Your task to perform on an android device: Search for vegetarian restaurants on Maps Image 0: 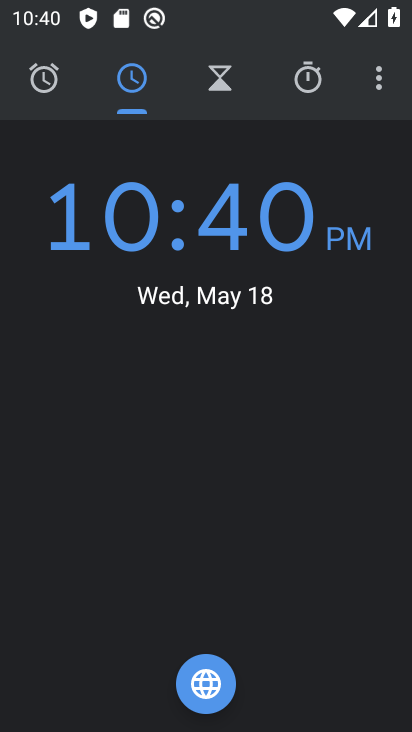
Step 0: press back button
Your task to perform on an android device: Search for vegetarian restaurants on Maps Image 1: 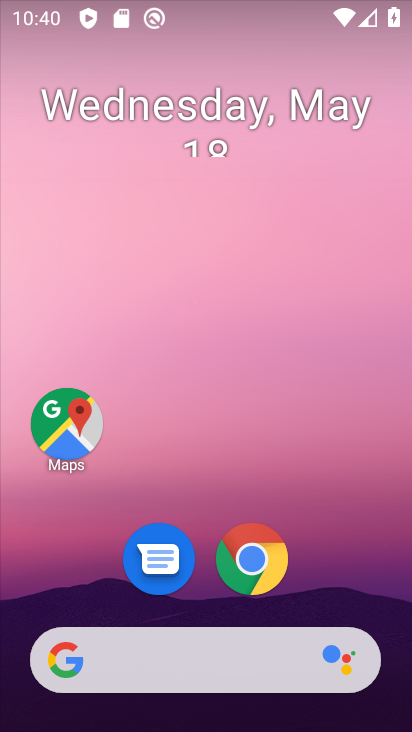
Step 1: click (53, 431)
Your task to perform on an android device: Search for vegetarian restaurants on Maps Image 2: 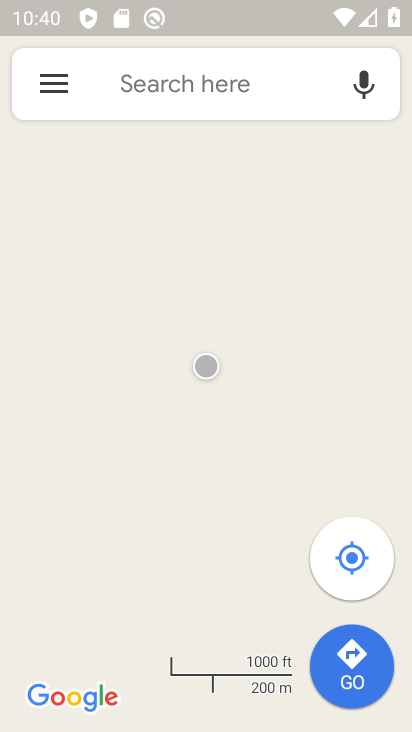
Step 2: click (167, 95)
Your task to perform on an android device: Search for vegetarian restaurants on Maps Image 3: 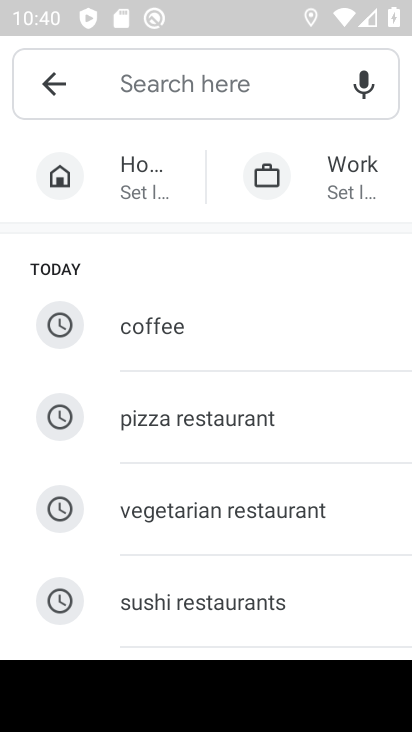
Step 3: click (198, 508)
Your task to perform on an android device: Search for vegetarian restaurants on Maps Image 4: 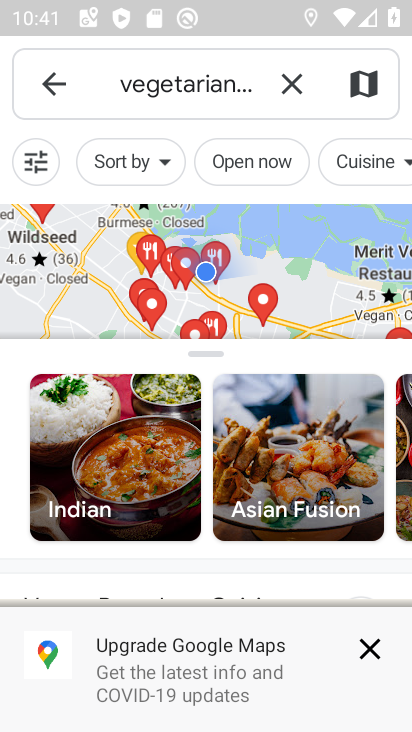
Step 4: task complete